Your task to perform on an android device: star an email in the gmail app Image 0: 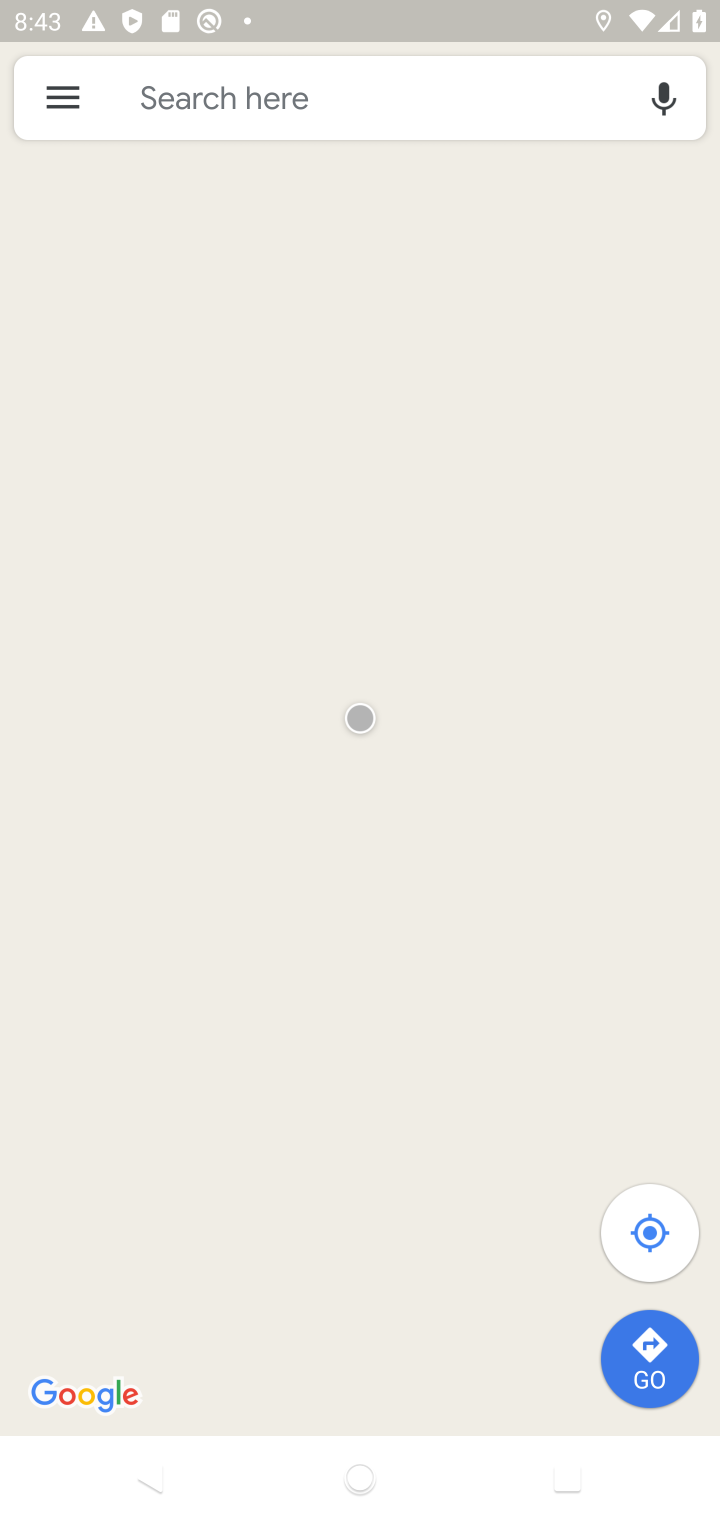
Step 0: press home button
Your task to perform on an android device: star an email in the gmail app Image 1: 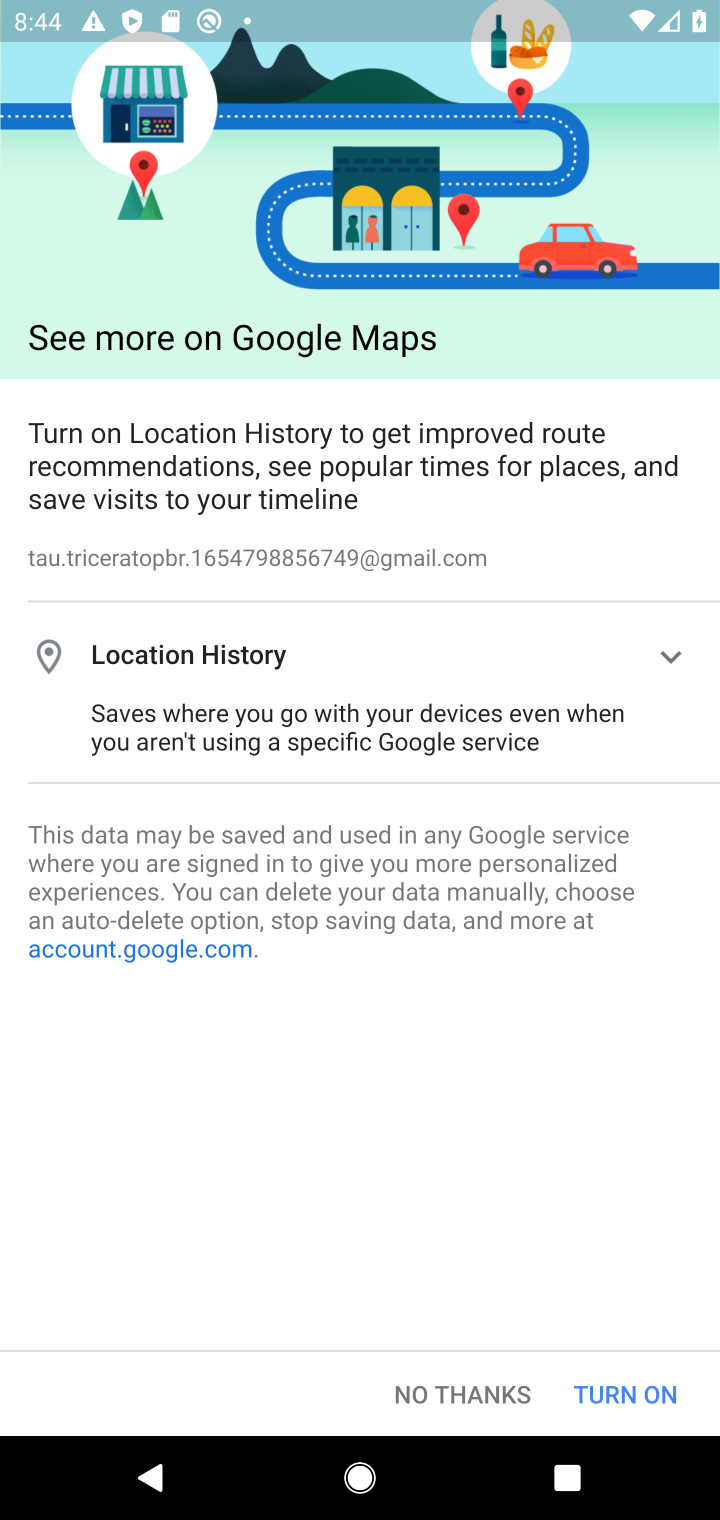
Step 1: press home button
Your task to perform on an android device: star an email in the gmail app Image 2: 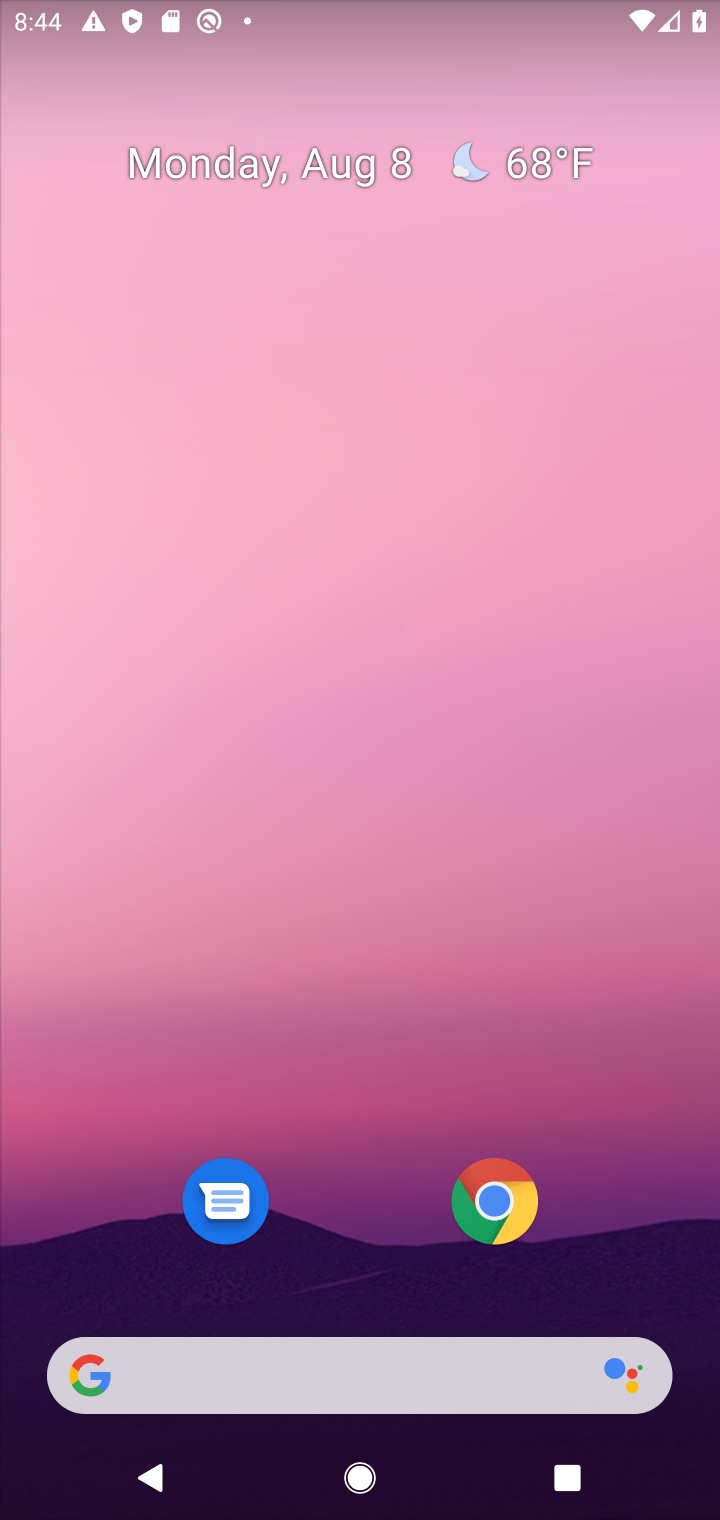
Step 2: drag from (594, 1269) to (638, 252)
Your task to perform on an android device: star an email in the gmail app Image 3: 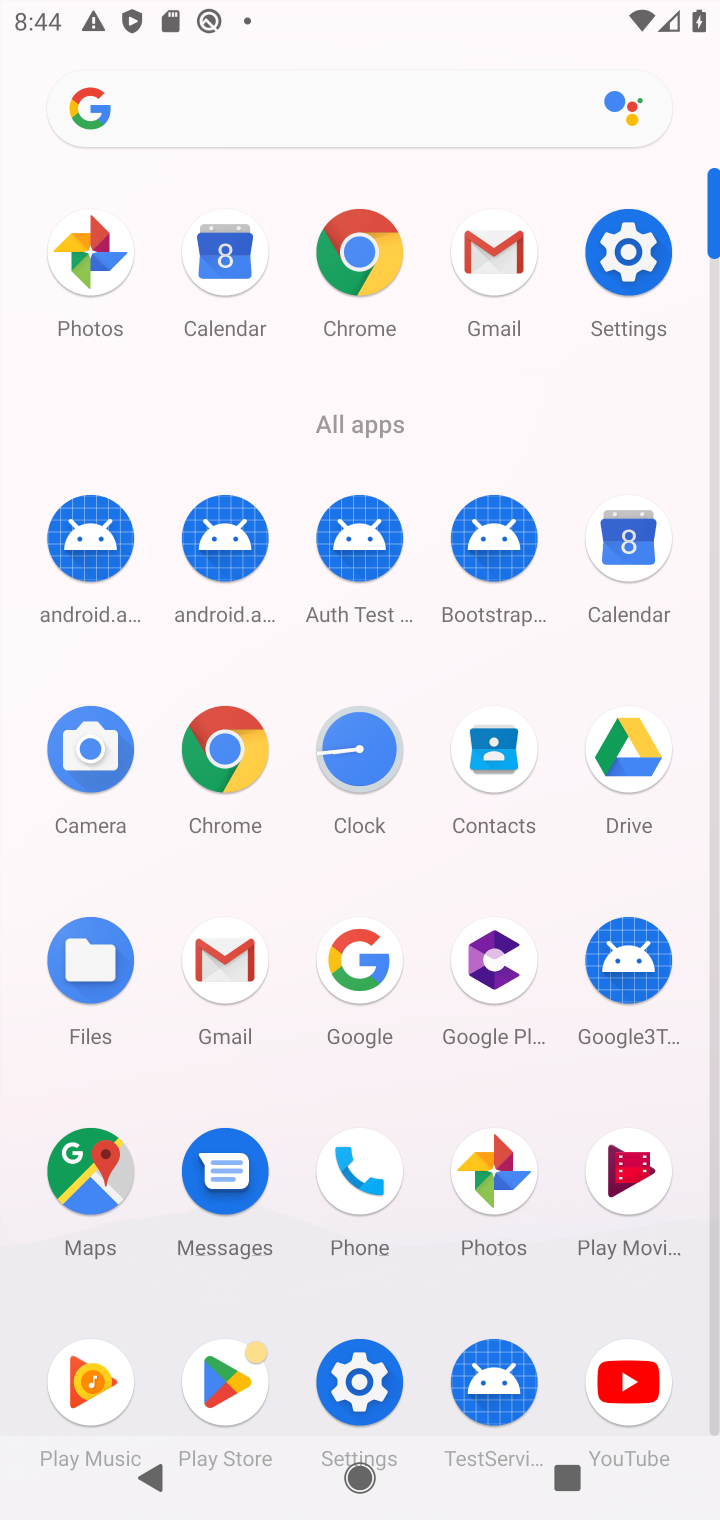
Step 3: click (217, 968)
Your task to perform on an android device: star an email in the gmail app Image 4: 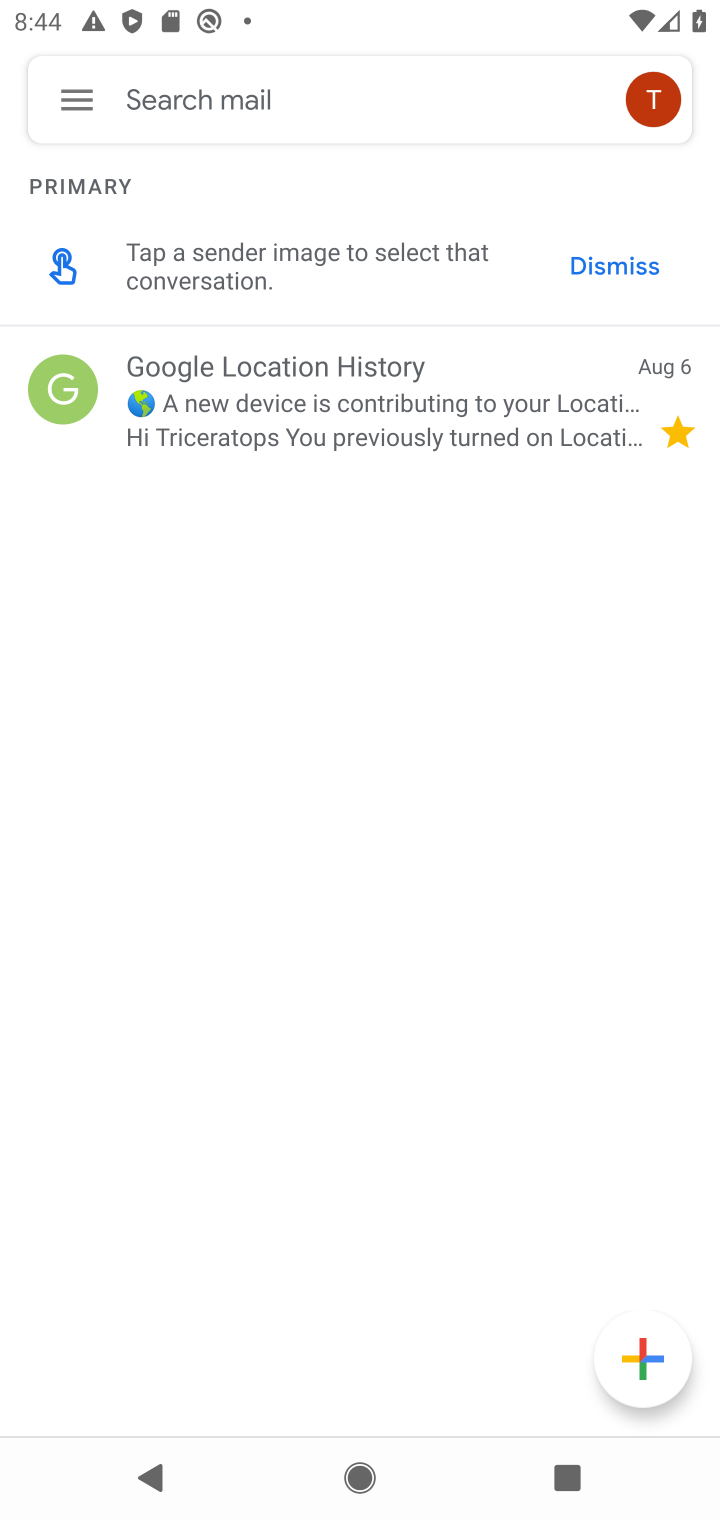
Step 4: click (71, 100)
Your task to perform on an android device: star an email in the gmail app Image 5: 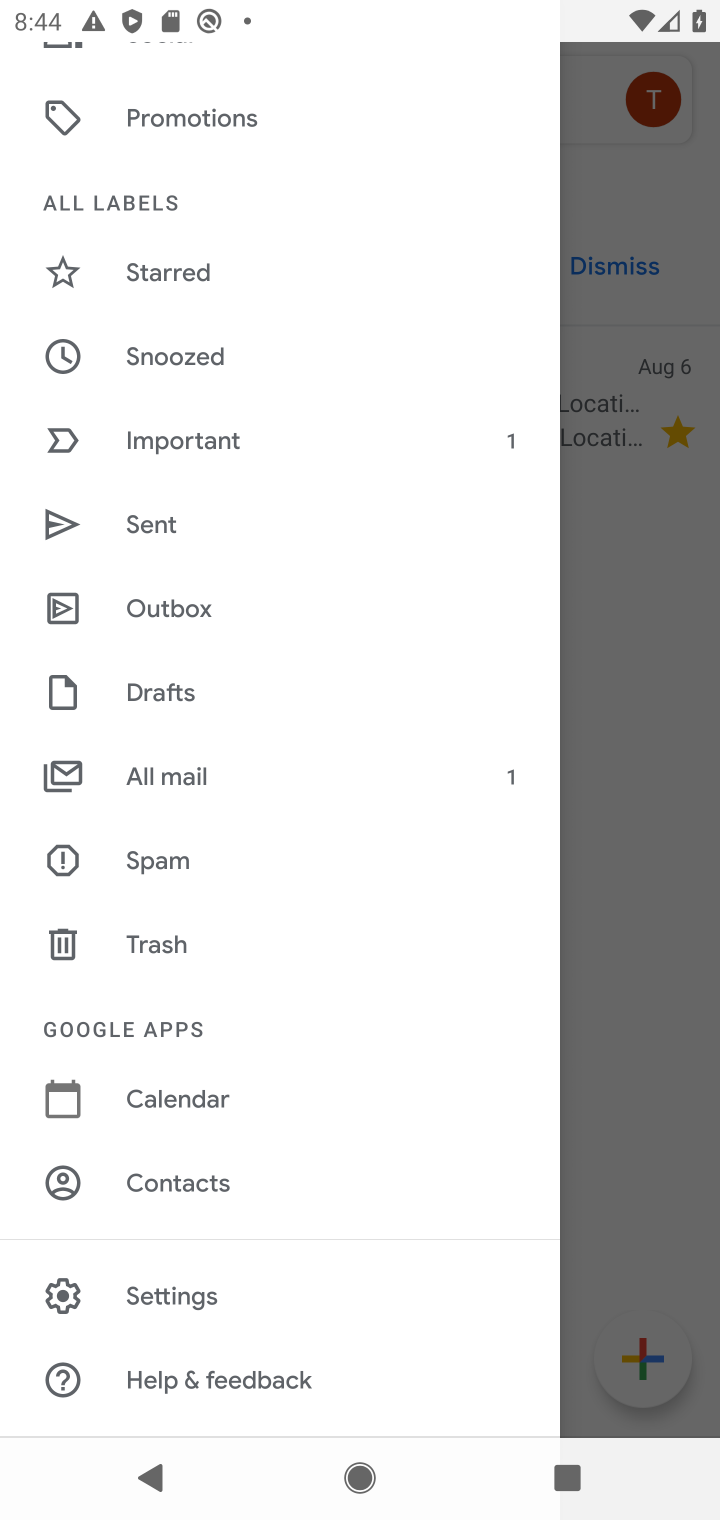
Step 5: click (353, 768)
Your task to perform on an android device: star an email in the gmail app Image 6: 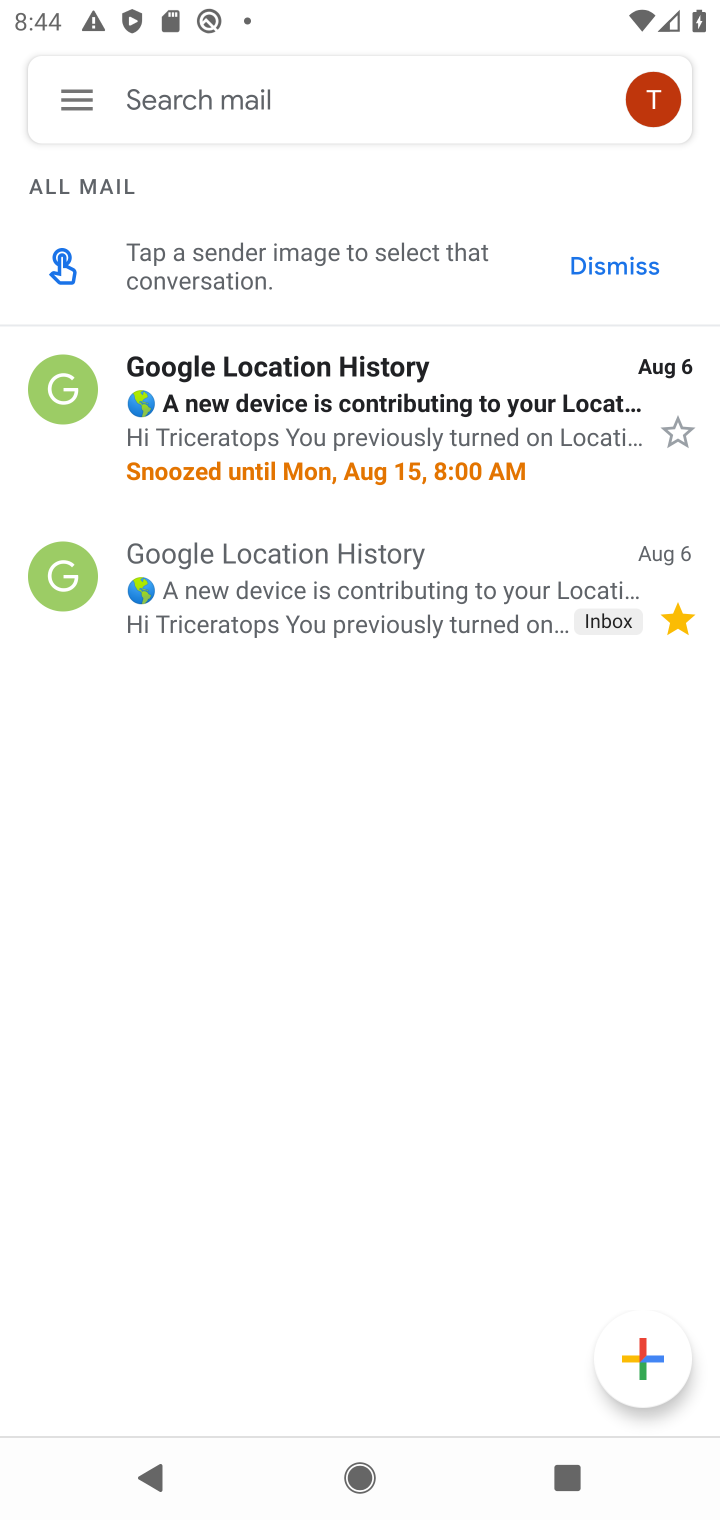
Step 6: click (676, 422)
Your task to perform on an android device: star an email in the gmail app Image 7: 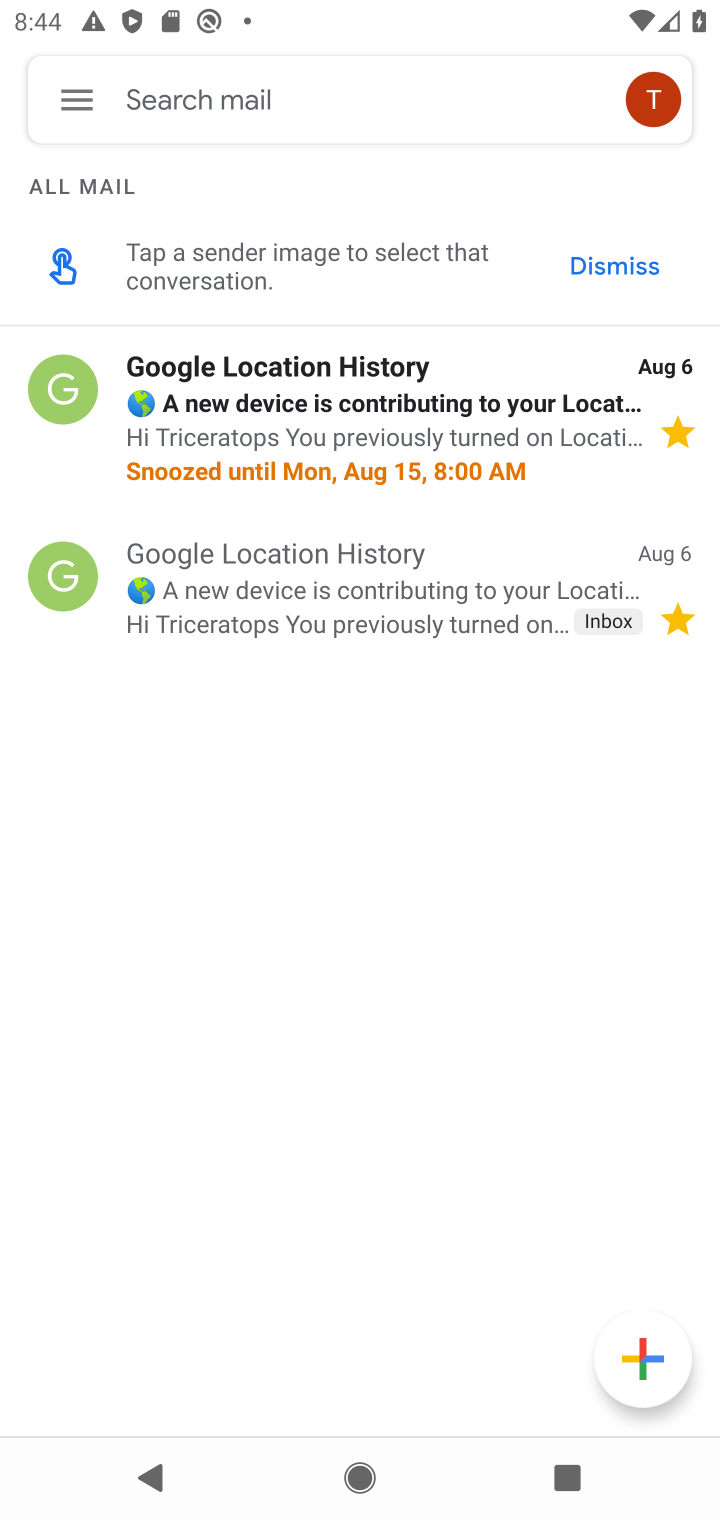
Step 7: task complete